Your task to perform on an android device: toggle notification dots Image 0: 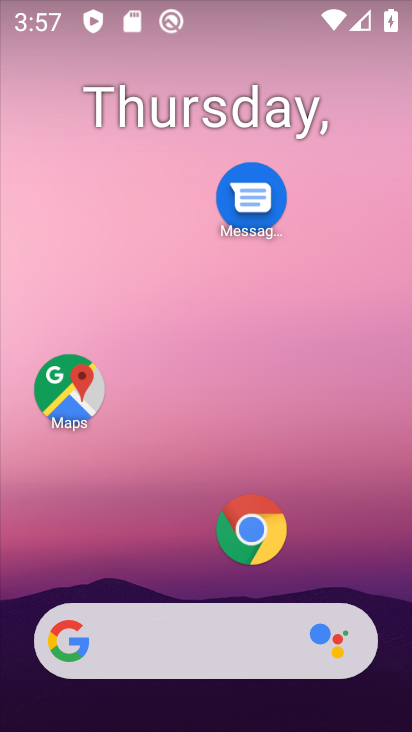
Step 0: drag from (142, 541) to (228, 25)
Your task to perform on an android device: toggle notification dots Image 1: 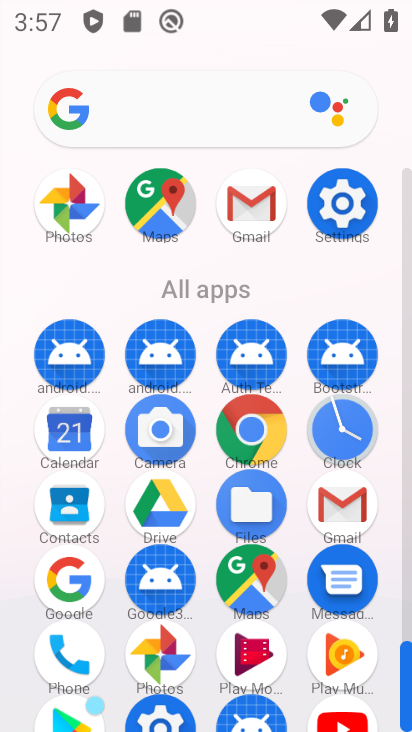
Step 1: click (353, 212)
Your task to perform on an android device: toggle notification dots Image 2: 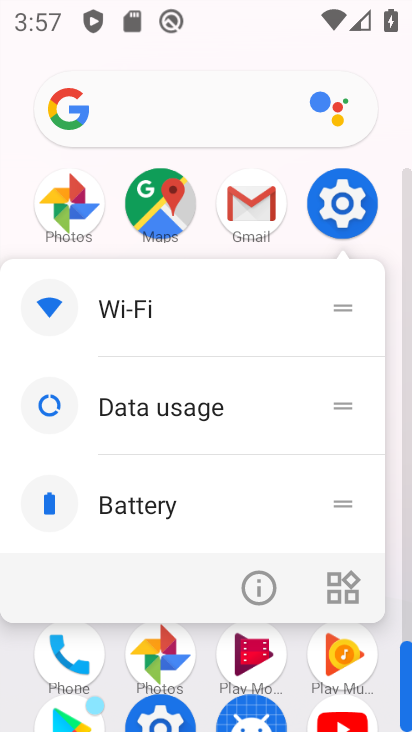
Step 2: click (341, 199)
Your task to perform on an android device: toggle notification dots Image 3: 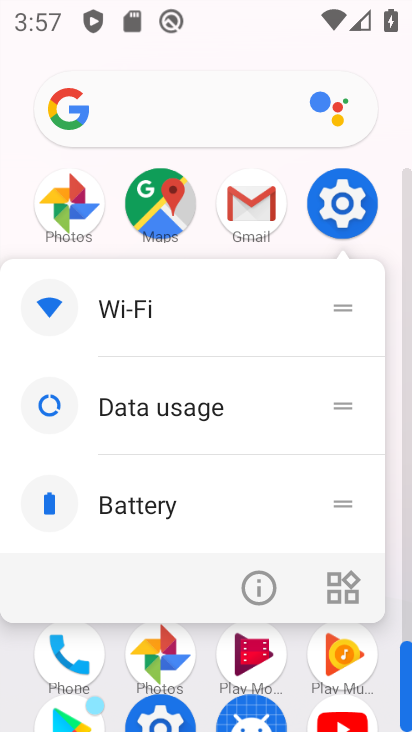
Step 3: click (339, 192)
Your task to perform on an android device: toggle notification dots Image 4: 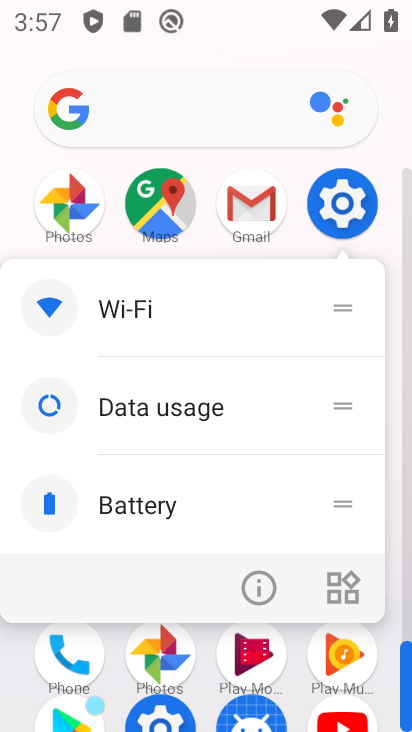
Step 4: click (360, 192)
Your task to perform on an android device: toggle notification dots Image 5: 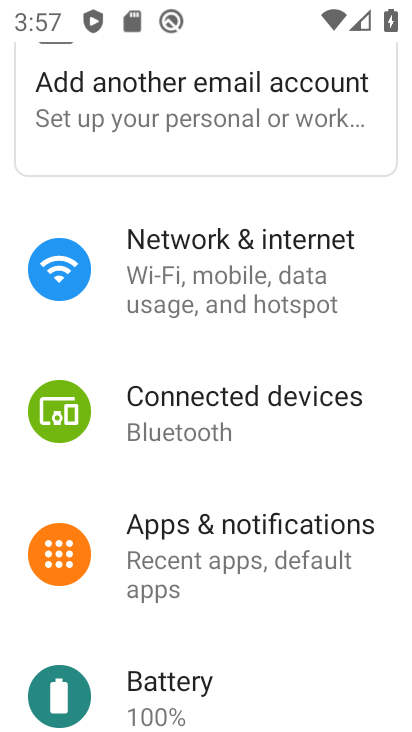
Step 5: click (292, 572)
Your task to perform on an android device: toggle notification dots Image 6: 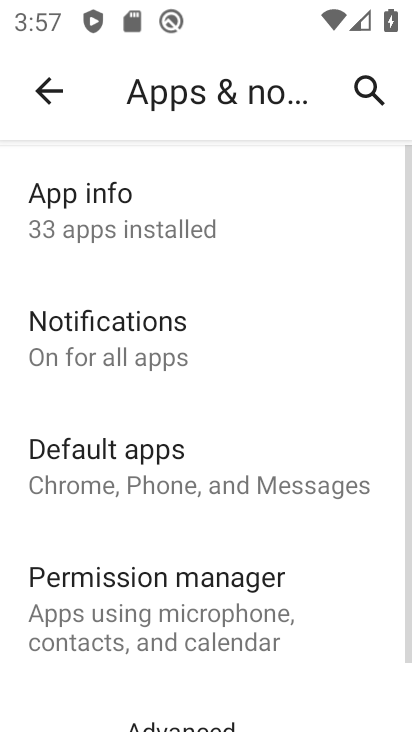
Step 6: drag from (276, 576) to (381, 296)
Your task to perform on an android device: toggle notification dots Image 7: 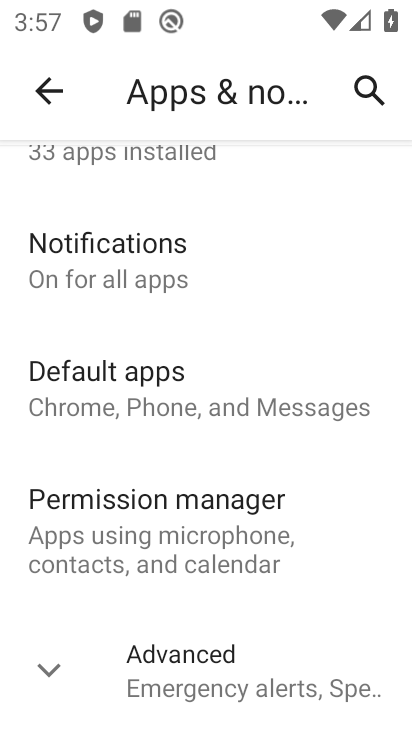
Step 7: click (237, 253)
Your task to perform on an android device: toggle notification dots Image 8: 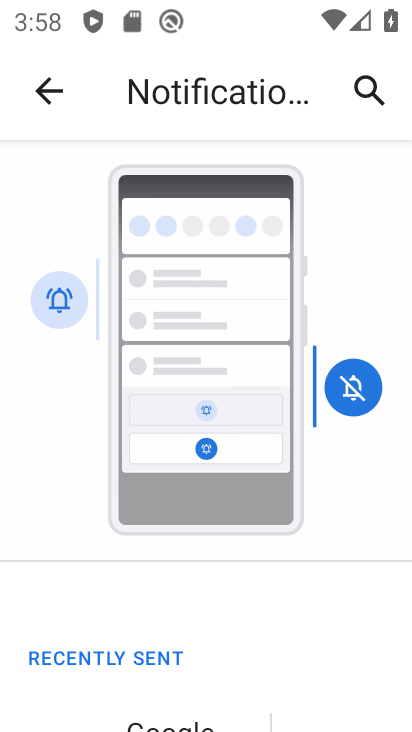
Step 8: drag from (243, 647) to (408, 115)
Your task to perform on an android device: toggle notification dots Image 9: 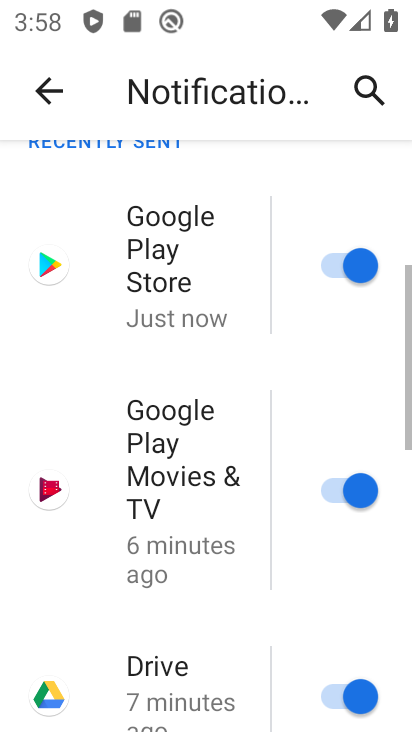
Step 9: drag from (236, 616) to (379, 115)
Your task to perform on an android device: toggle notification dots Image 10: 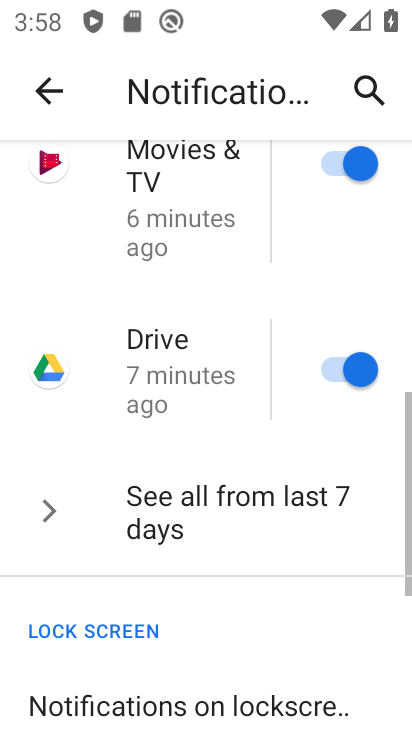
Step 10: drag from (232, 591) to (408, 60)
Your task to perform on an android device: toggle notification dots Image 11: 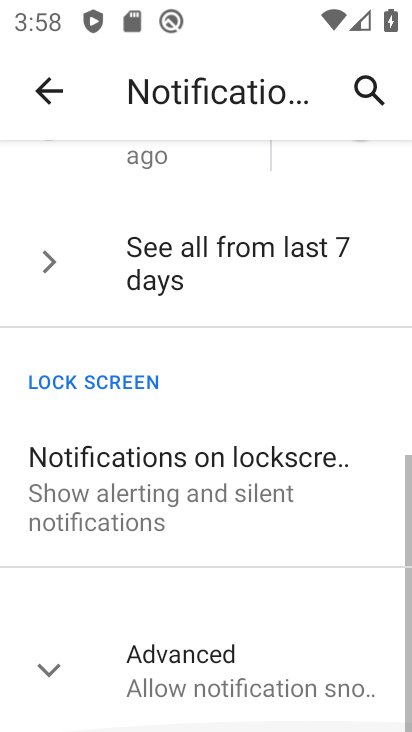
Step 11: click (266, 690)
Your task to perform on an android device: toggle notification dots Image 12: 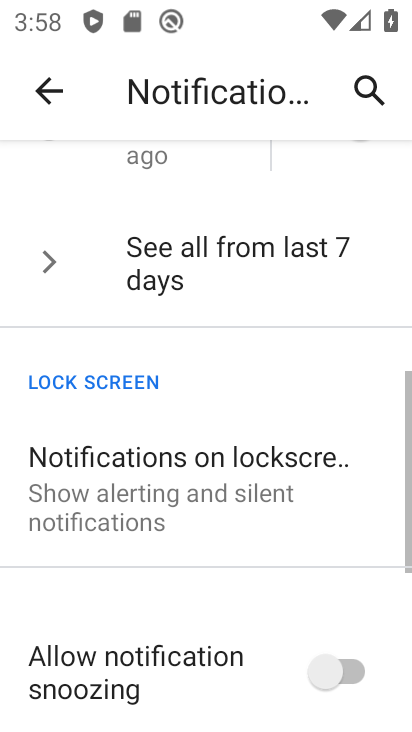
Step 12: drag from (305, 573) to (296, 281)
Your task to perform on an android device: toggle notification dots Image 13: 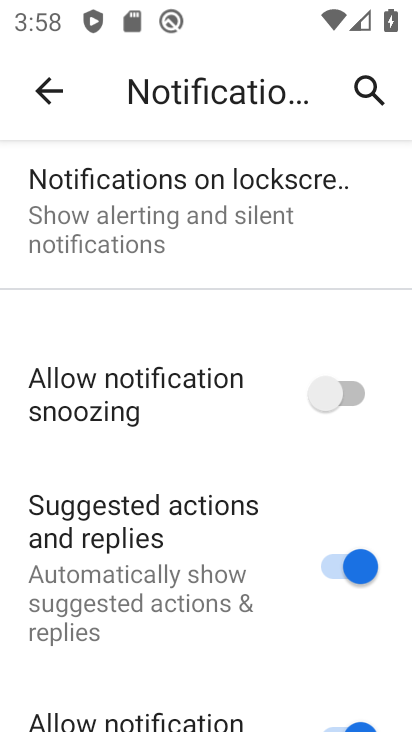
Step 13: drag from (233, 608) to (320, 229)
Your task to perform on an android device: toggle notification dots Image 14: 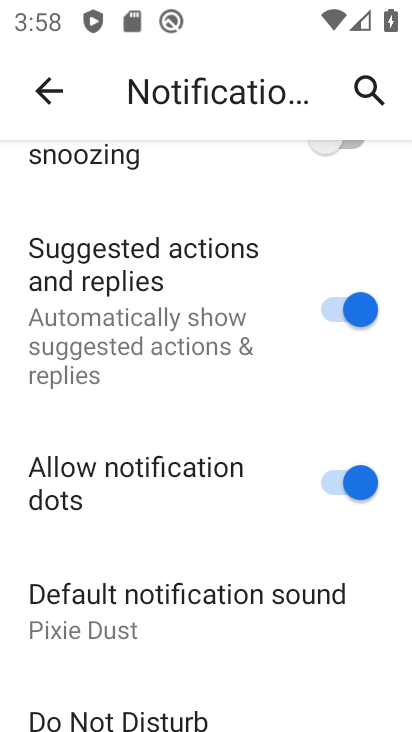
Step 14: click (332, 484)
Your task to perform on an android device: toggle notification dots Image 15: 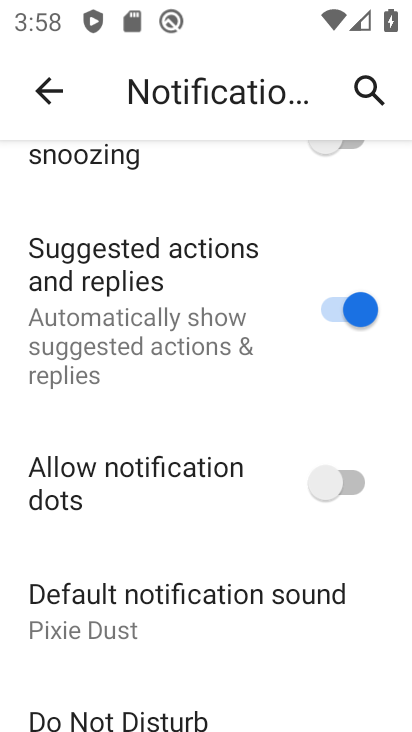
Step 15: task complete